Your task to perform on an android device: Add "razer blackwidow" to the cart on ebay Image 0: 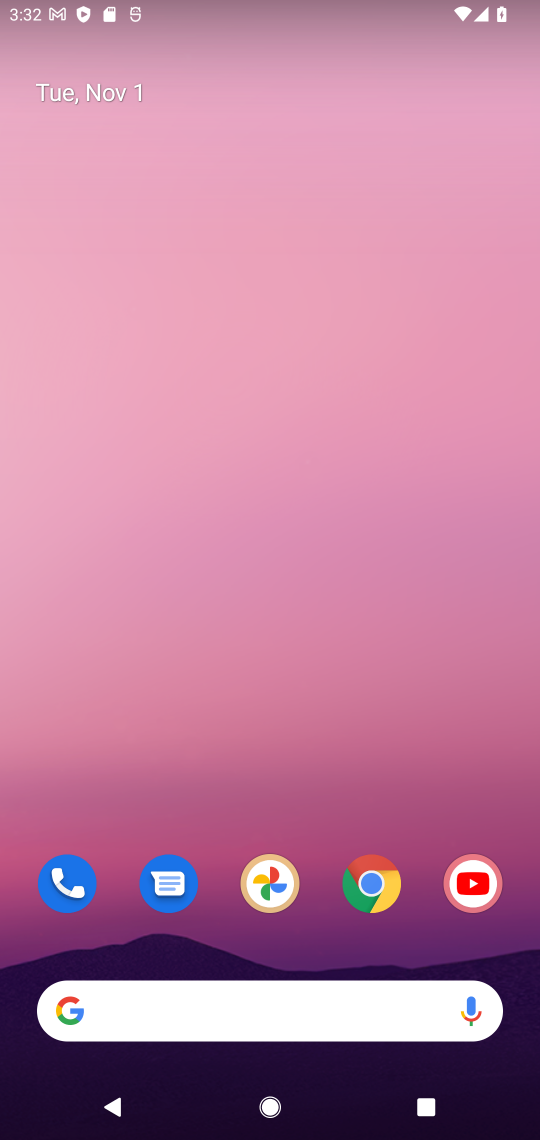
Step 0: click (370, 884)
Your task to perform on an android device: Add "razer blackwidow" to the cart on ebay Image 1: 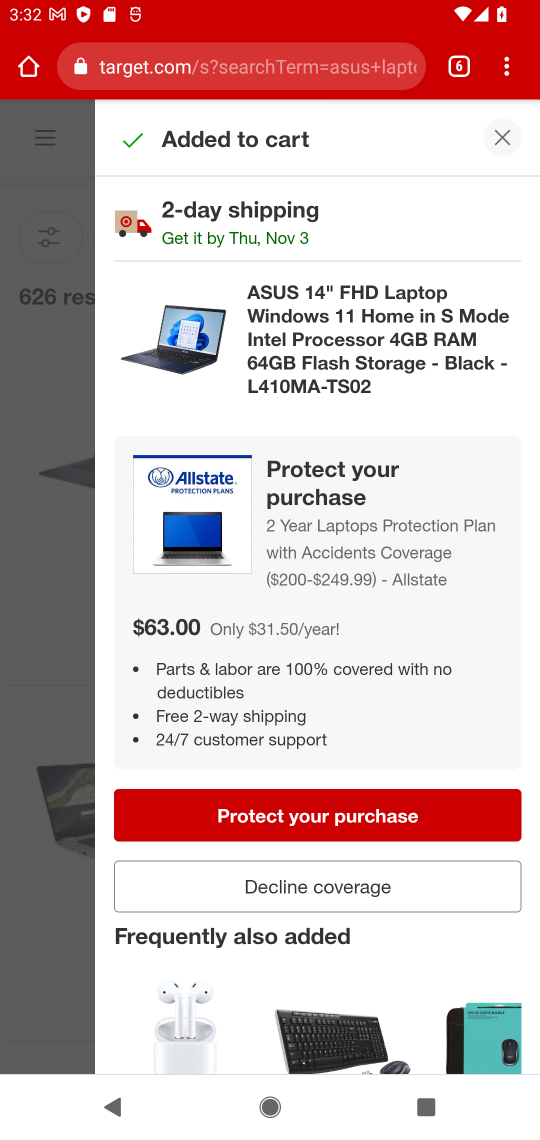
Step 1: click (457, 64)
Your task to perform on an android device: Add "razer blackwidow" to the cart on ebay Image 2: 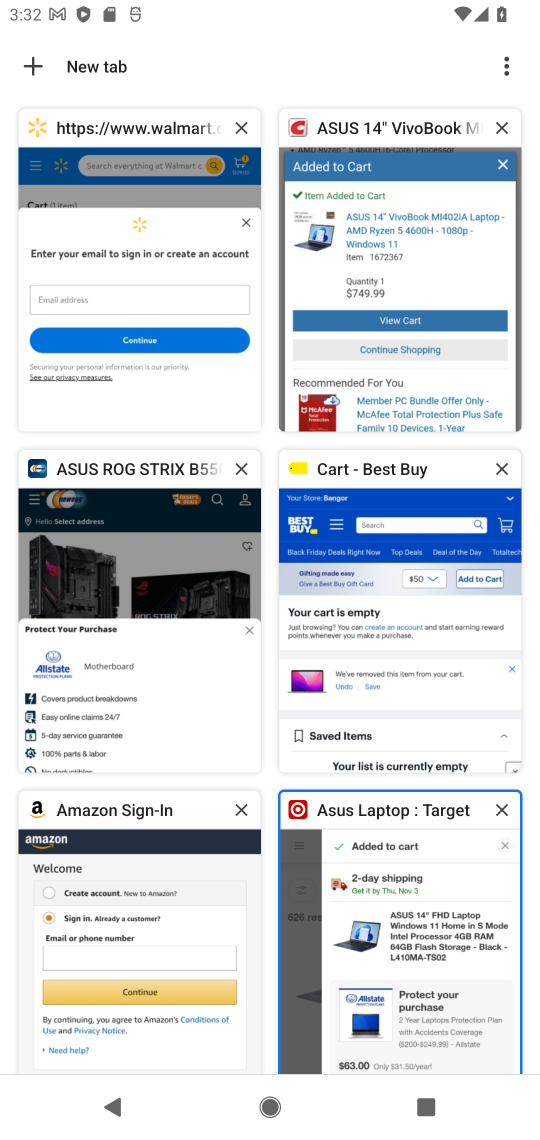
Step 2: click (27, 64)
Your task to perform on an android device: Add "razer blackwidow" to the cart on ebay Image 3: 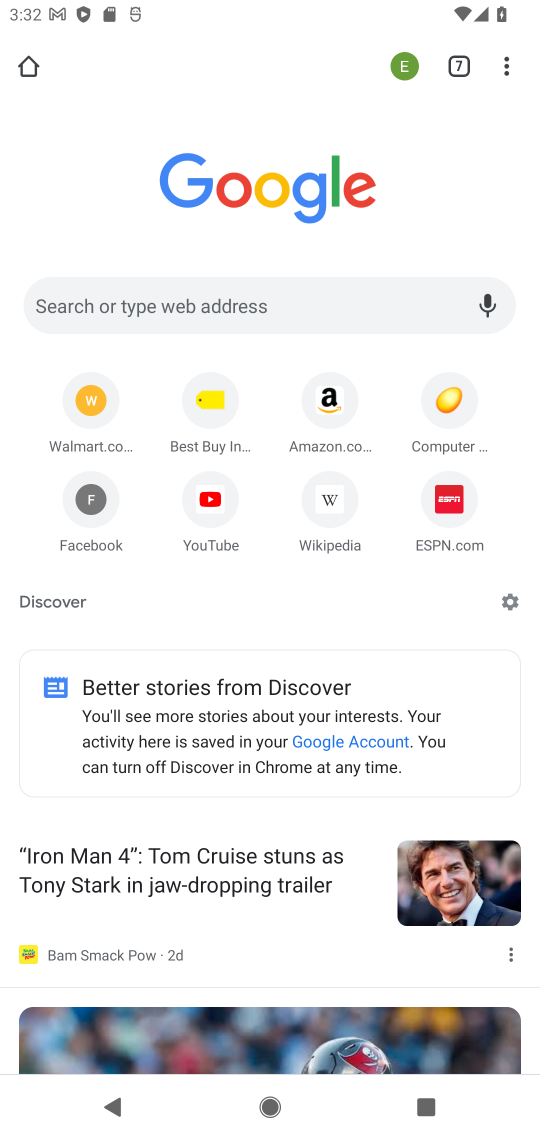
Step 3: click (232, 301)
Your task to perform on an android device: Add "razer blackwidow" to the cart on ebay Image 4: 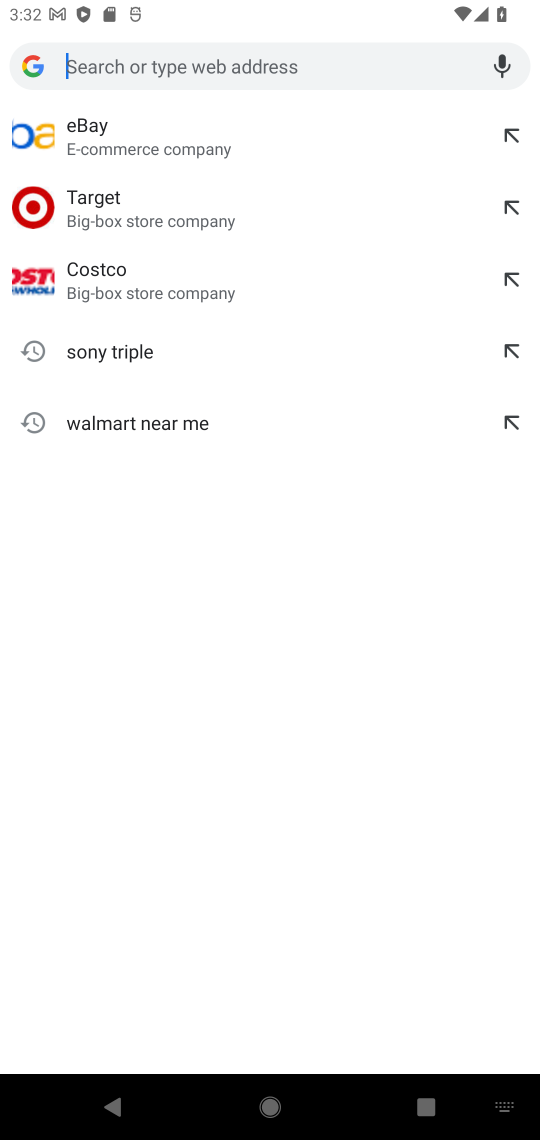
Step 4: click (91, 142)
Your task to perform on an android device: Add "razer blackwidow" to the cart on ebay Image 5: 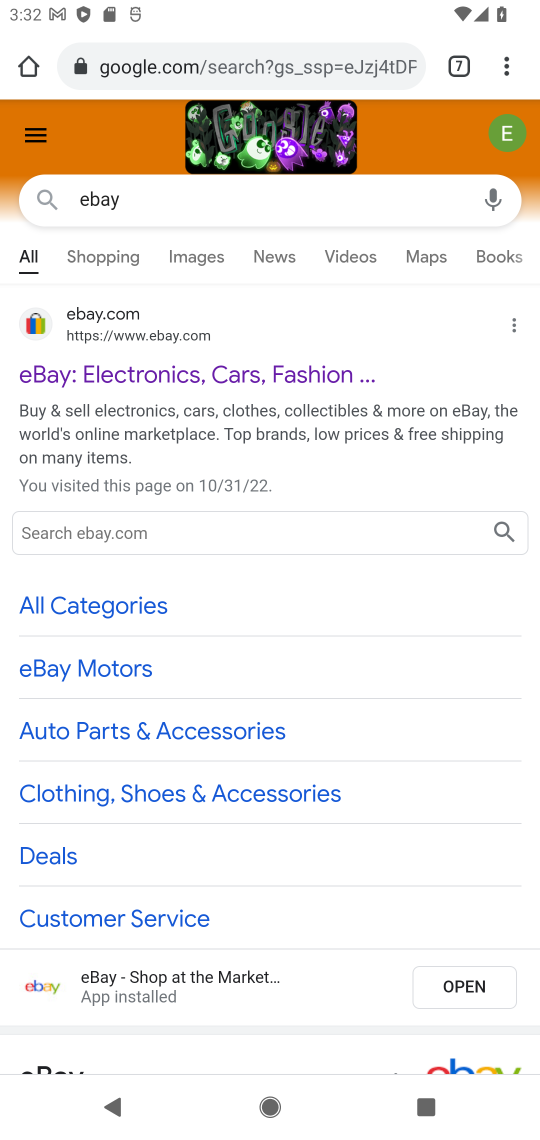
Step 5: click (123, 367)
Your task to perform on an android device: Add "razer blackwidow" to the cart on ebay Image 6: 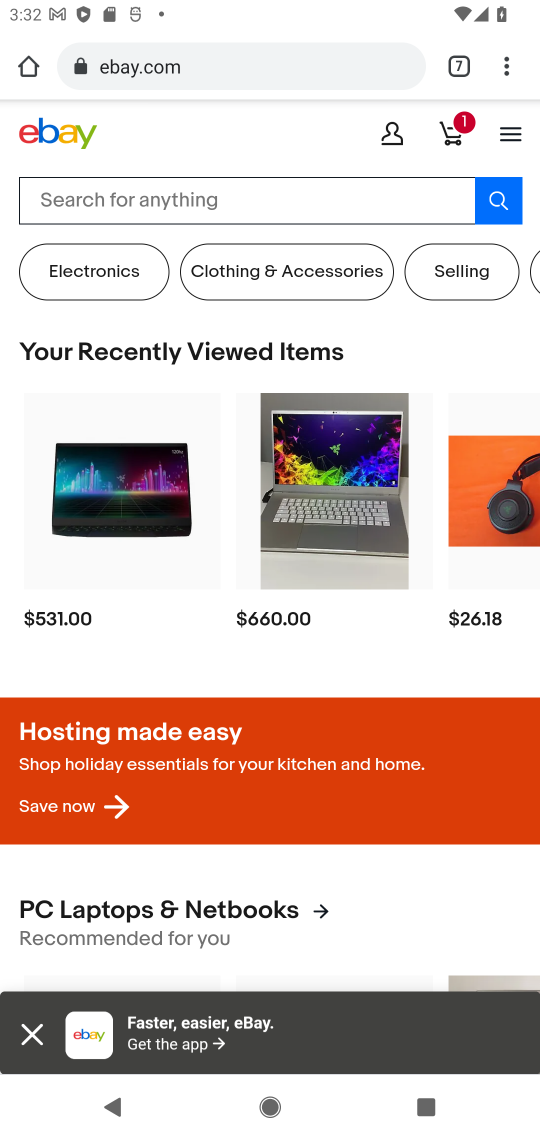
Step 6: click (28, 1038)
Your task to perform on an android device: Add "razer blackwidow" to the cart on ebay Image 7: 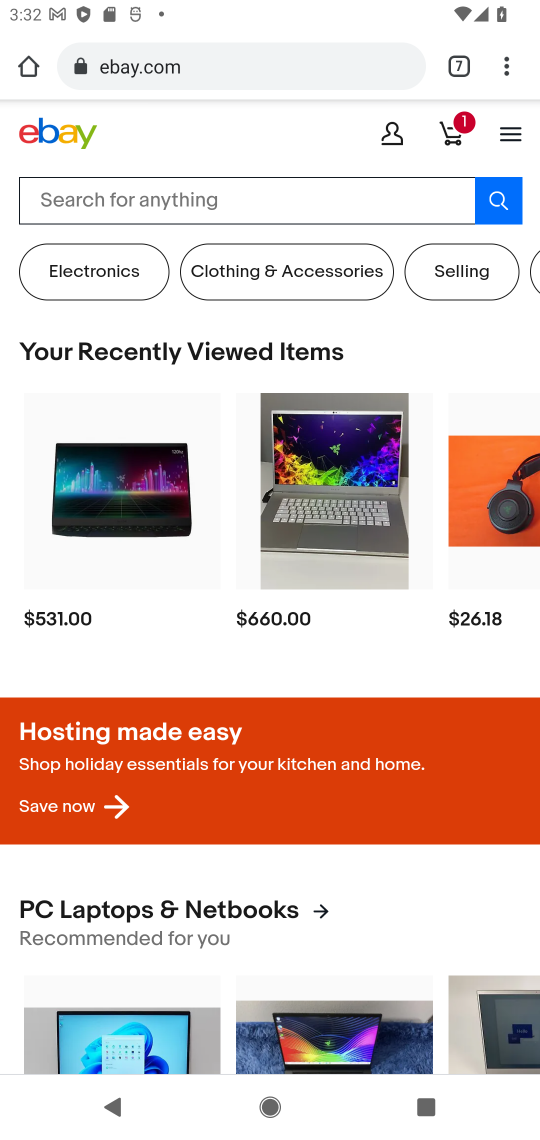
Step 7: click (288, 198)
Your task to perform on an android device: Add "razer blackwidow" to the cart on ebay Image 8: 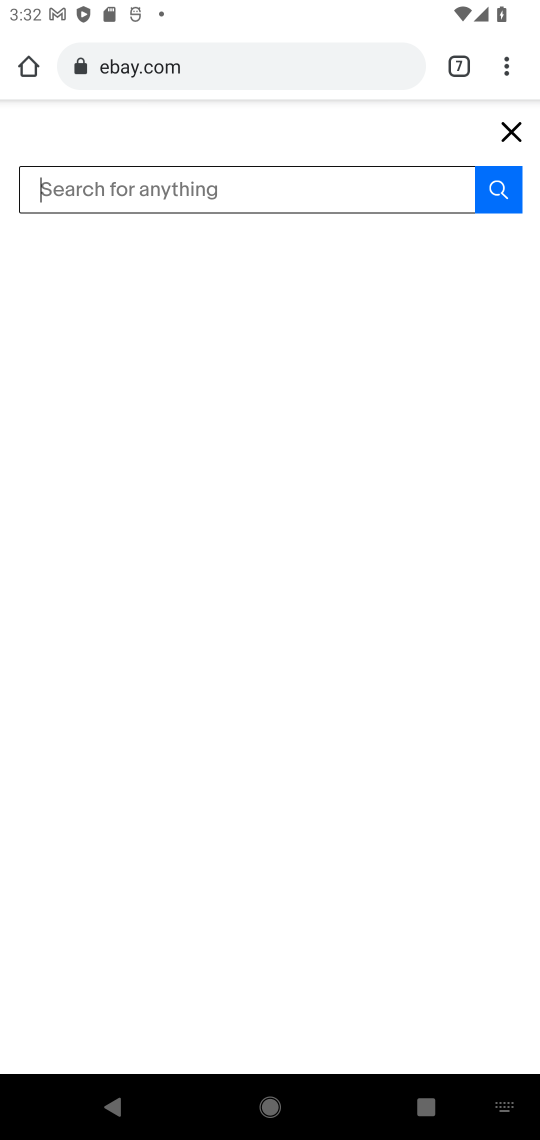
Step 8: type "razer blackwidow"
Your task to perform on an android device: Add "razer blackwidow" to the cart on ebay Image 9: 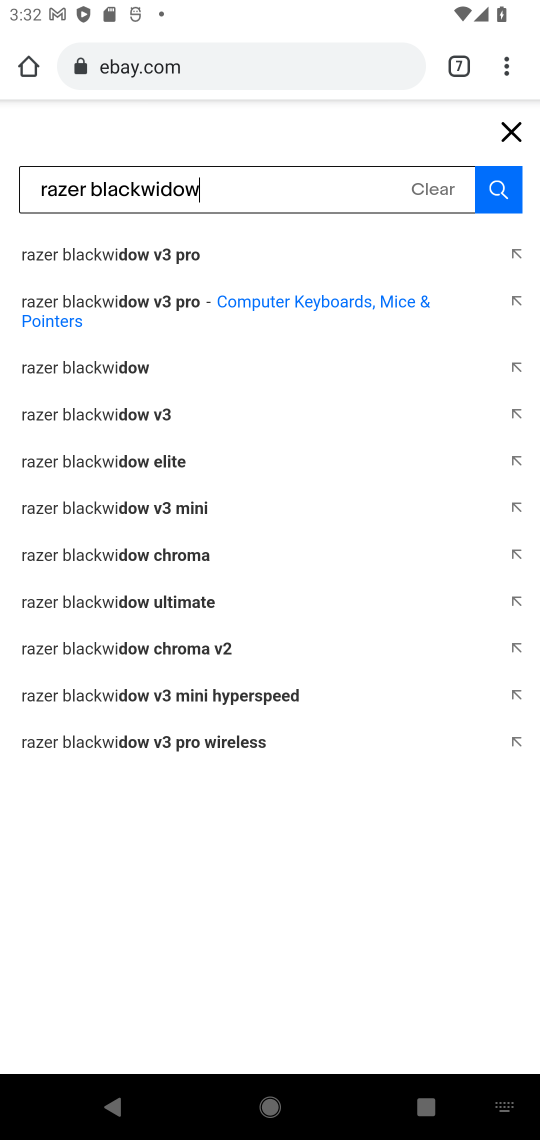
Step 9: click (143, 302)
Your task to perform on an android device: Add "razer blackwidow" to the cart on ebay Image 10: 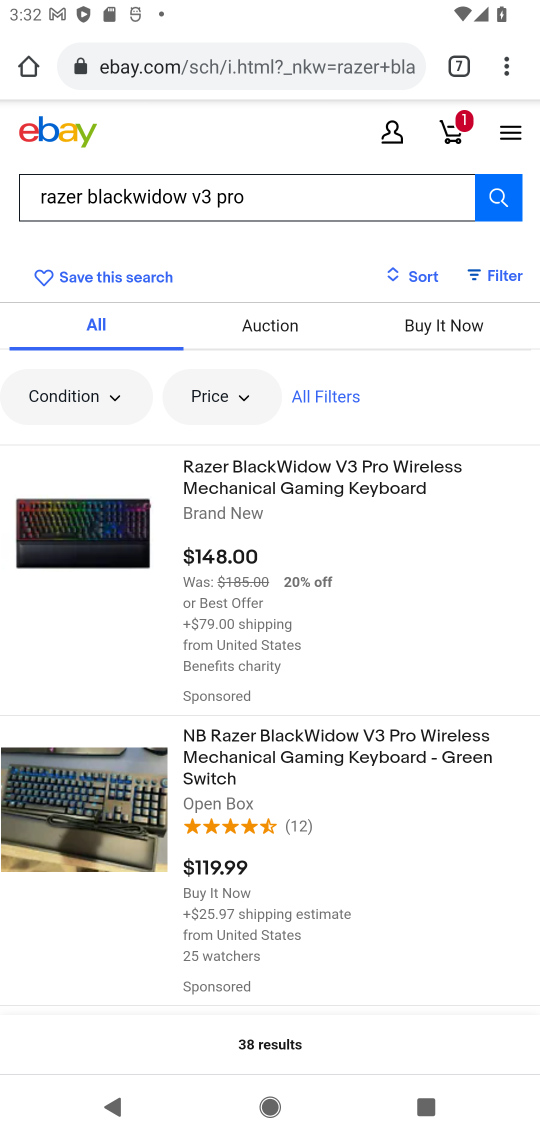
Step 10: click (241, 465)
Your task to perform on an android device: Add "razer blackwidow" to the cart on ebay Image 11: 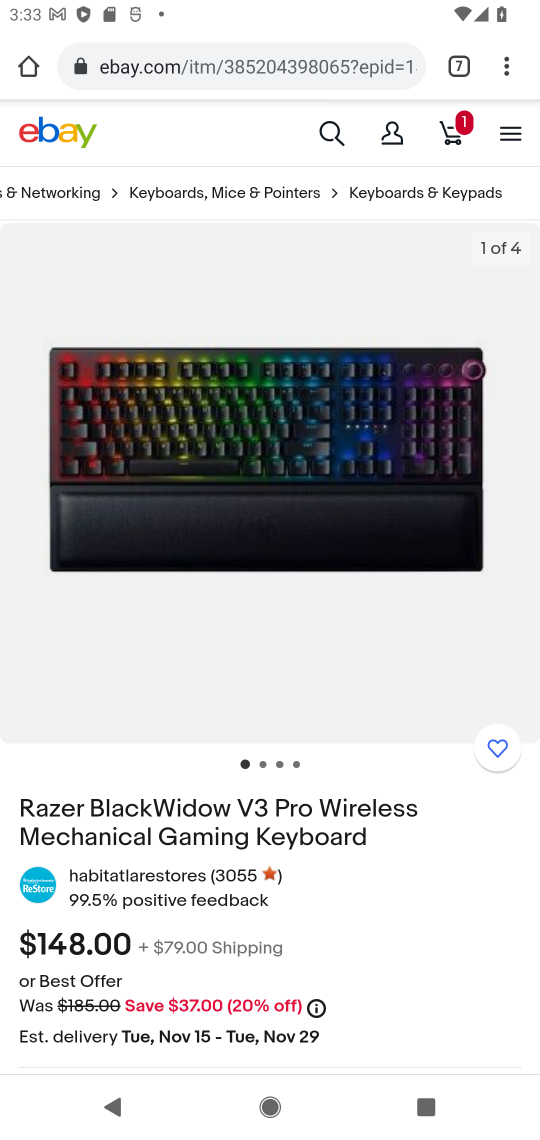
Step 11: drag from (389, 878) to (445, 265)
Your task to perform on an android device: Add "razer blackwidow" to the cart on ebay Image 12: 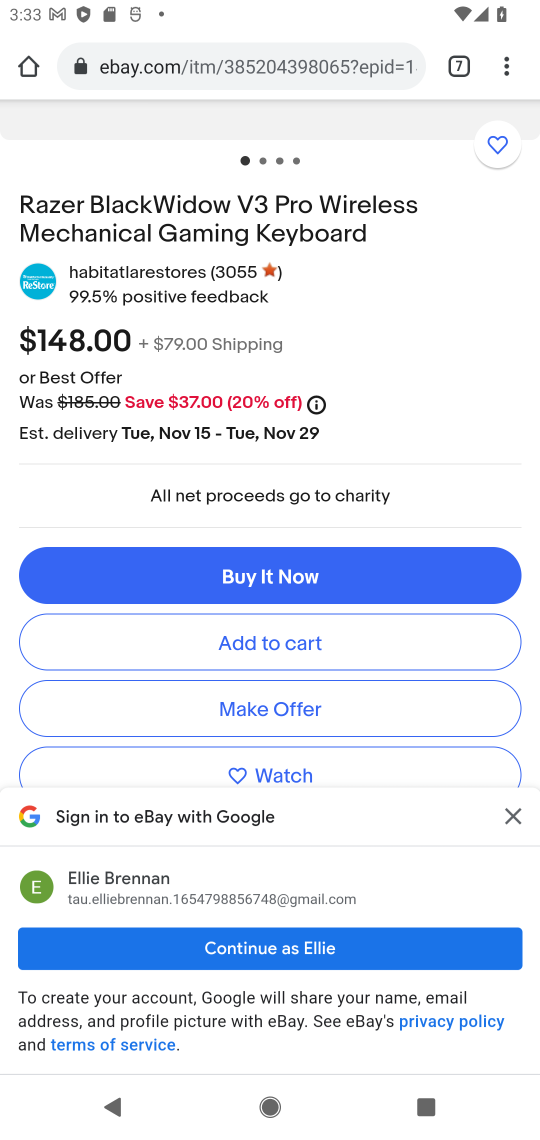
Step 12: click (306, 642)
Your task to perform on an android device: Add "razer blackwidow" to the cart on ebay Image 13: 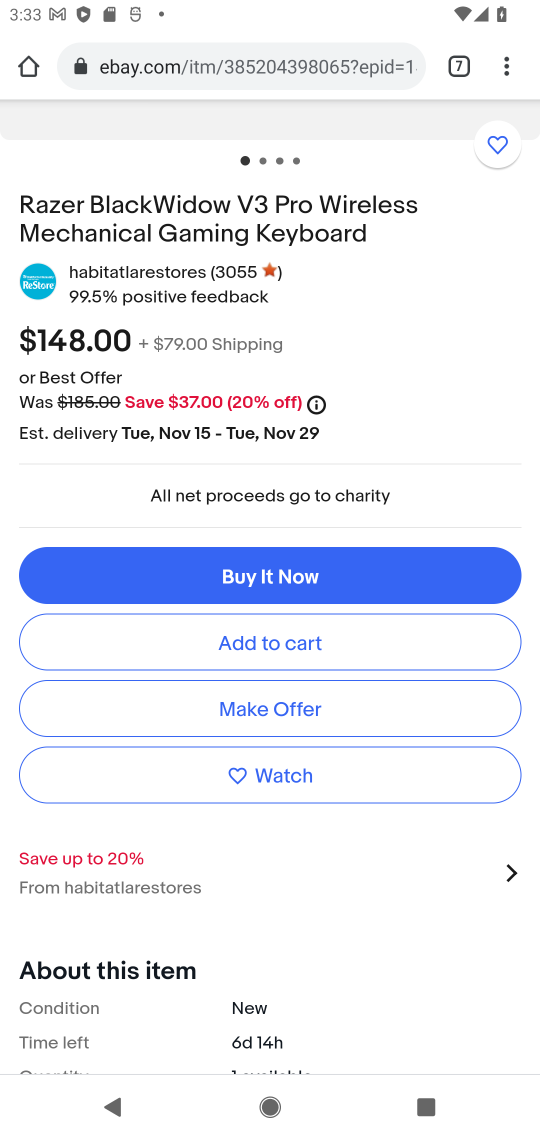
Step 13: click (246, 637)
Your task to perform on an android device: Add "razer blackwidow" to the cart on ebay Image 14: 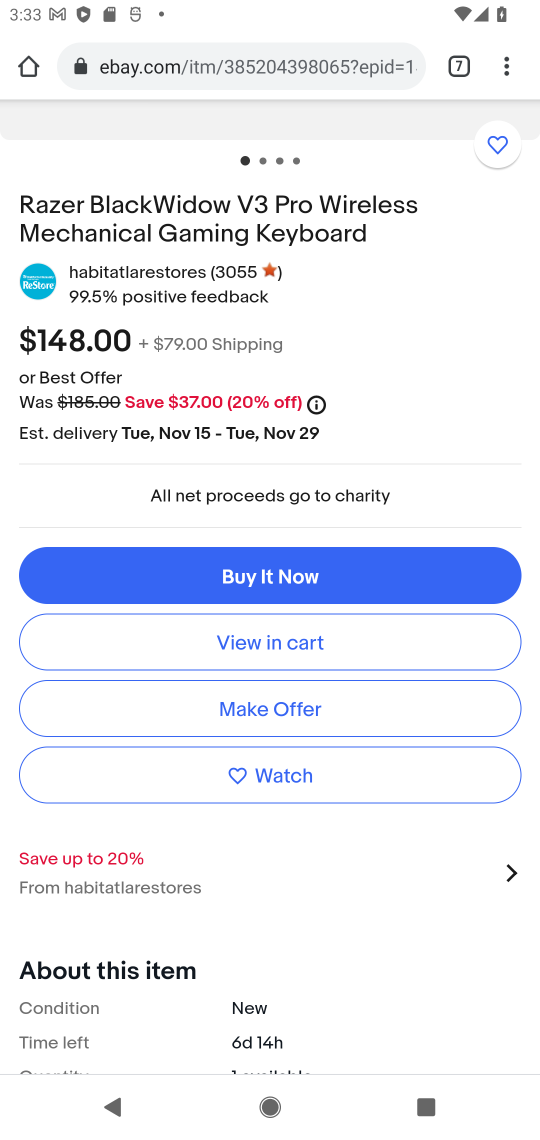
Step 14: task complete